Your task to perform on an android device: open chrome and create a bookmark for the current page Image 0: 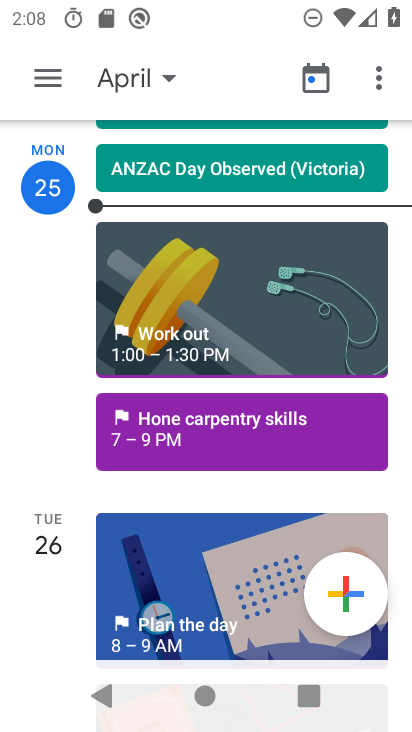
Step 0: press home button
Your task to perform on an android device: open chrome and create a bookmark for the current page Image 1: 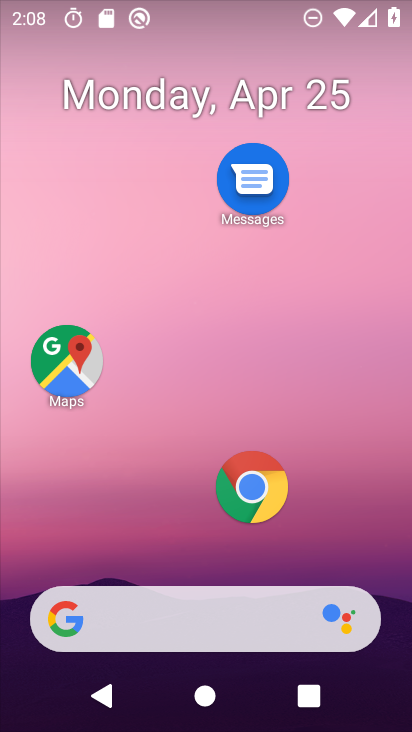
Step 1: drag from (335, 576) to (380, 3)
Your task to perform on an android device: open chrome and create a bookmark for the current page Image 2: 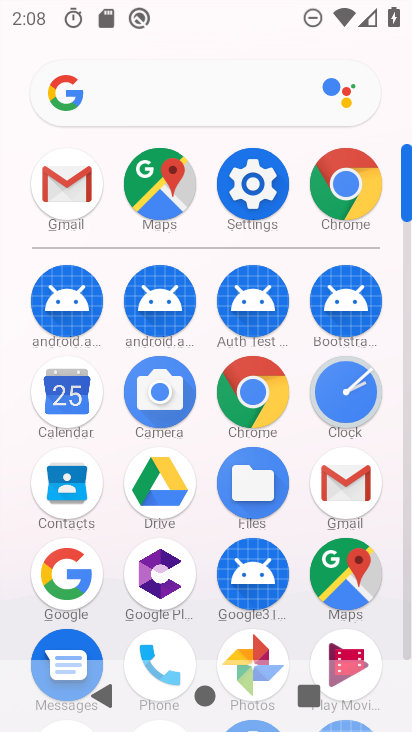
Step 2: click (245, 401)
Your task to perform on an android device: open chrome and create a bookmark for the current page Image 3: 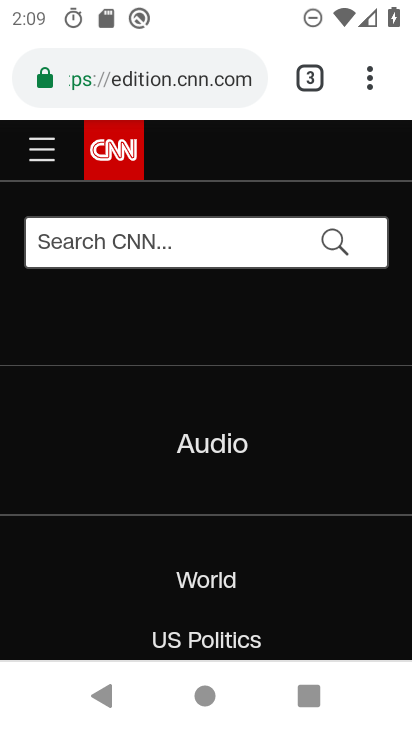
Step 3: task complete